Your task to perform on an android device: Do I have any events this weekend? Image 0: 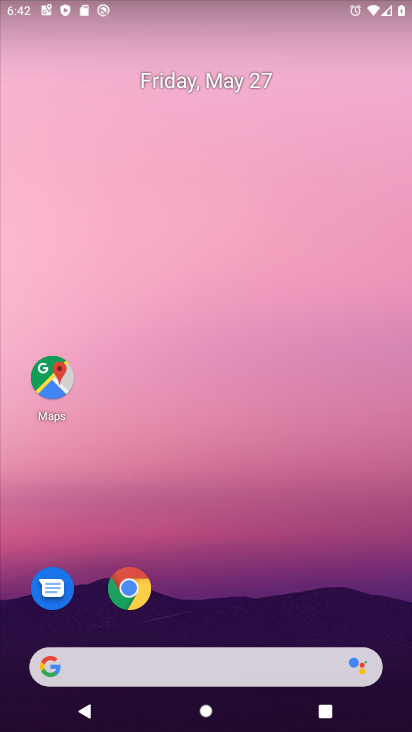
Step 0: drag from (214, 620) to (213, 105)
Your task to perform on an android device: Do I have any events this weekend? Image 1: 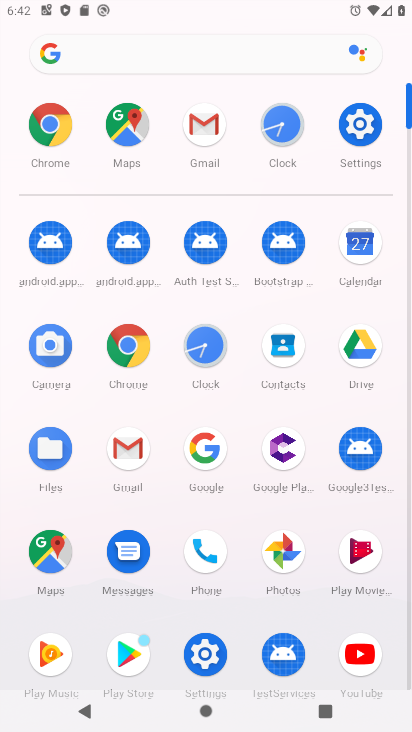
Step 1: click (372, 221)
Your task to perform on an android device: Do I have any events this weekend? Image 2: 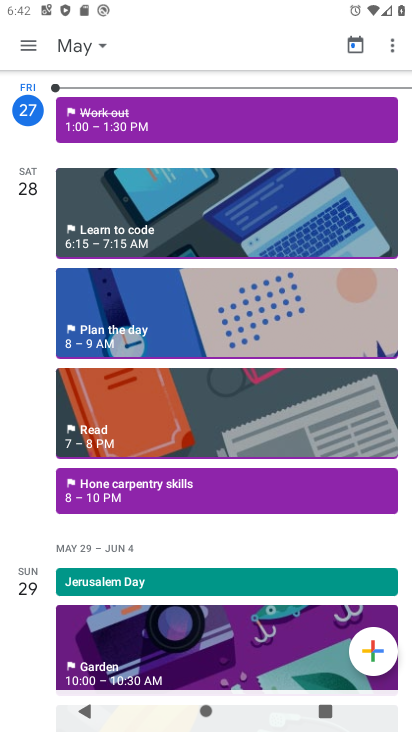
Step 2: click (78, 55)
Your task to perform on an android device: Do I have any events this weekend? Image 3: 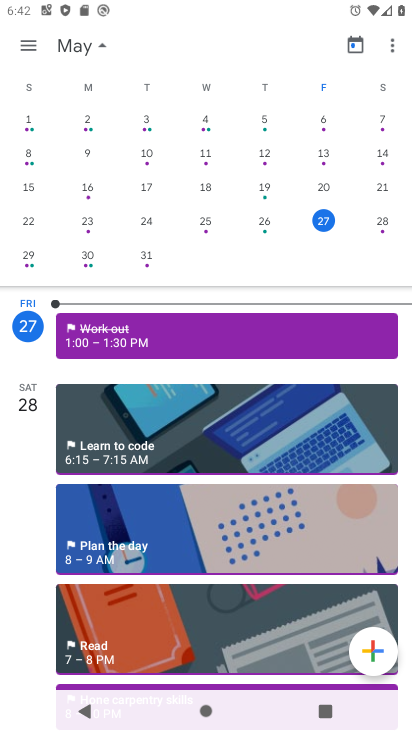
Step 3: click (91, 49)
Your task to perform on an android device: Do I have any events this weekend? Image 4: 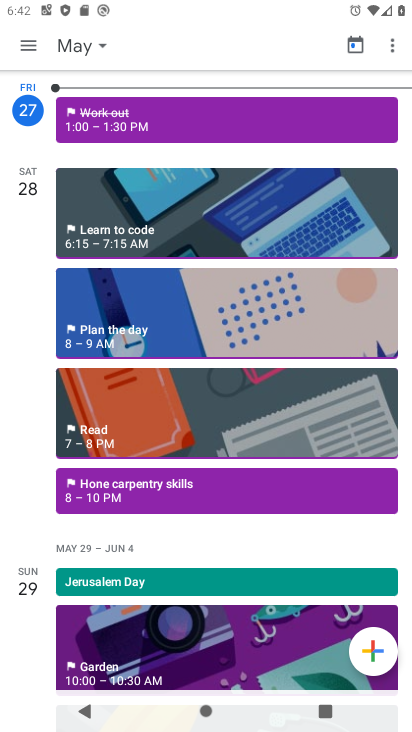
Step 4: task complete